Your task to perform on an android device: visit the assistant section in the google photos Image 0: 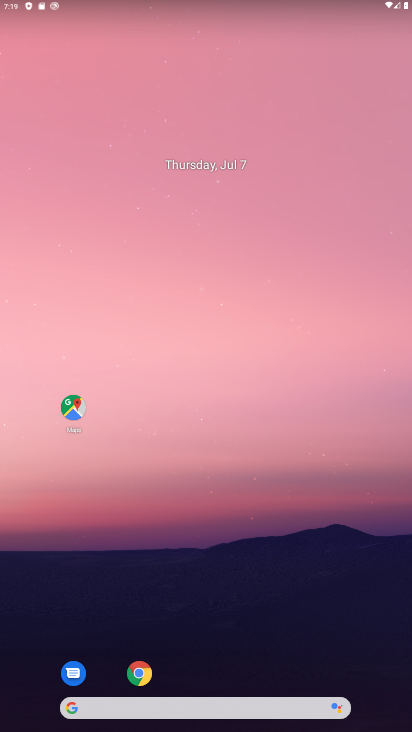
Step 0: drag from (216, 664) to (156, 64)
Your task to perform on an android device: visit the assistant section in the google photos Image 1: 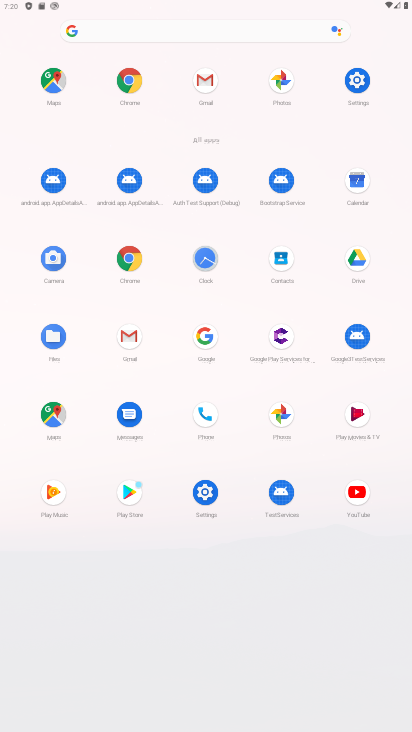
Step 1: click (286, 81)
Your task to perform on an android device: visit the assistant section in the google photos Image 2: 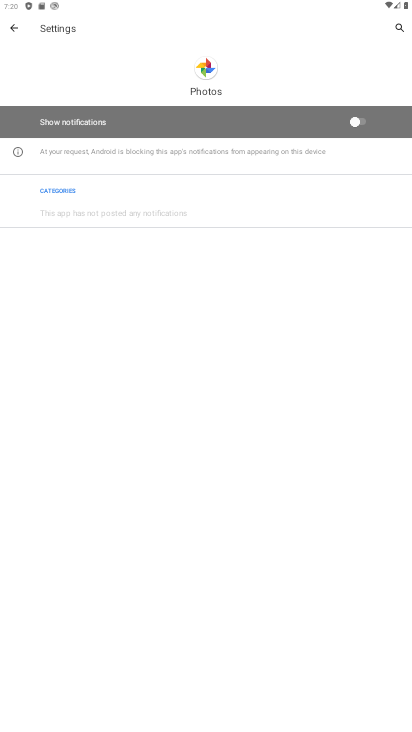
Step 2: press back button
Your task to perform on an android device: visit the assistant section in the google photos Image 3: 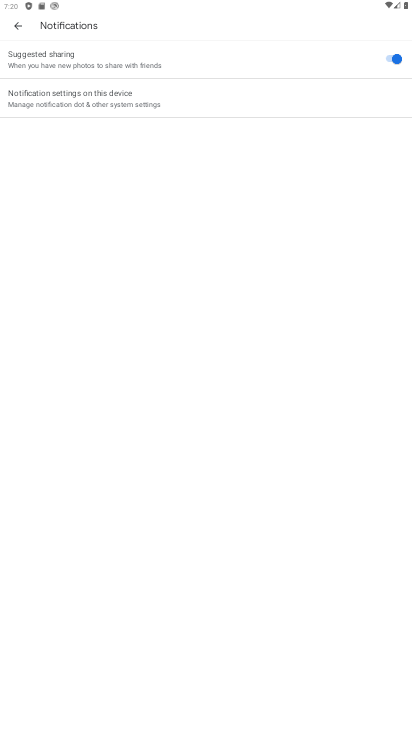
Step 3: press back button
Your task to perform on an android device: visit the assistant section in the google photos Image 4: 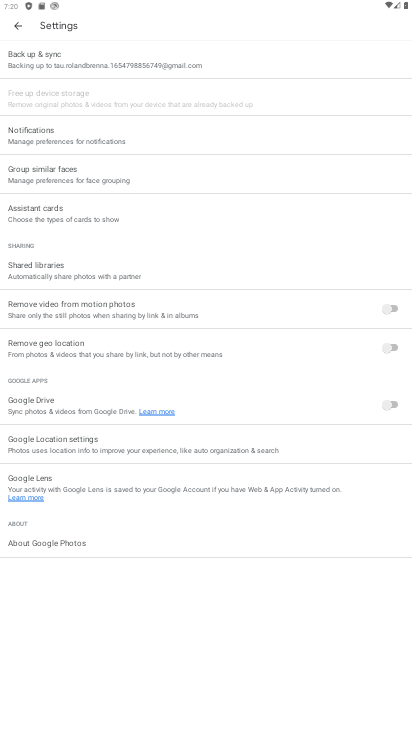
Step 4: press back button
Your task to perform on an android device: visit the assistant section in the google photos Image 5: 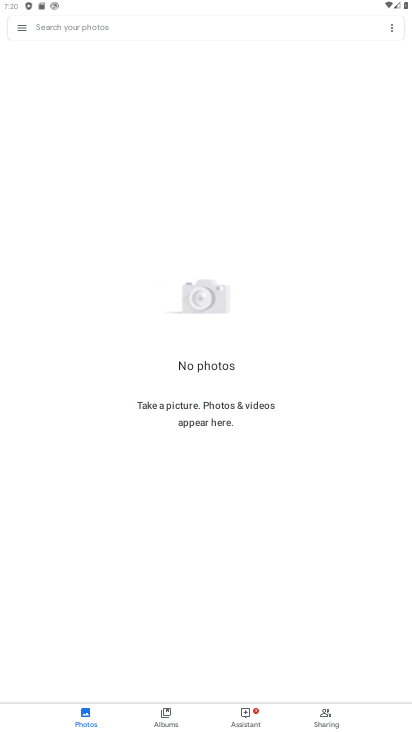
Step 5: click (242, 712)
Your task to perform on an android device: visit the assistant section in the google photos Image 6: 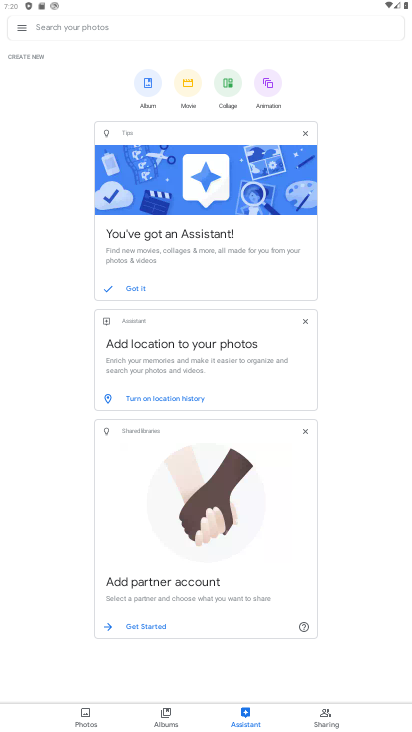
Step 6: task complete